Your task to perform on an android device: refresh tabs in the chrome app Image 0: 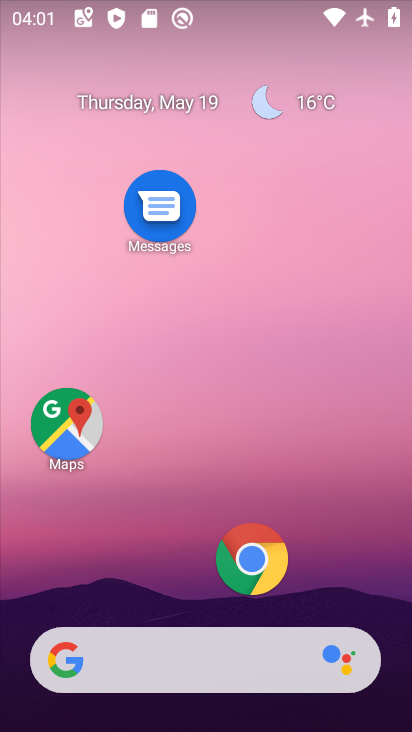
Step 0: click (239, 569)
Your task to perform on an android device: refresh tabs in the chrome app Image 1: 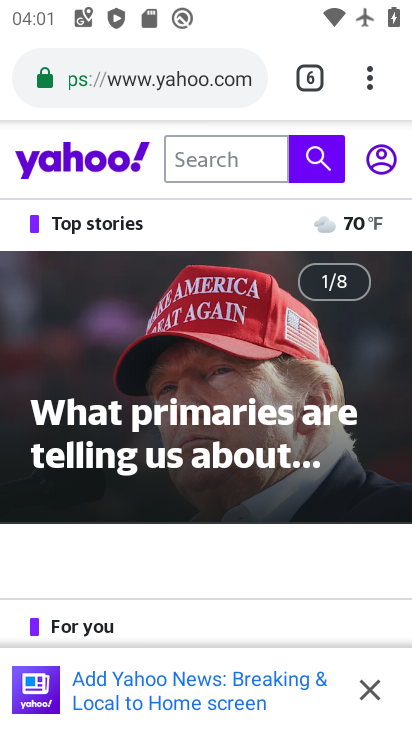
Step 1: click (361, 84)
Your task to perform on an android device: refresh tabs in the chrome app Image 2: 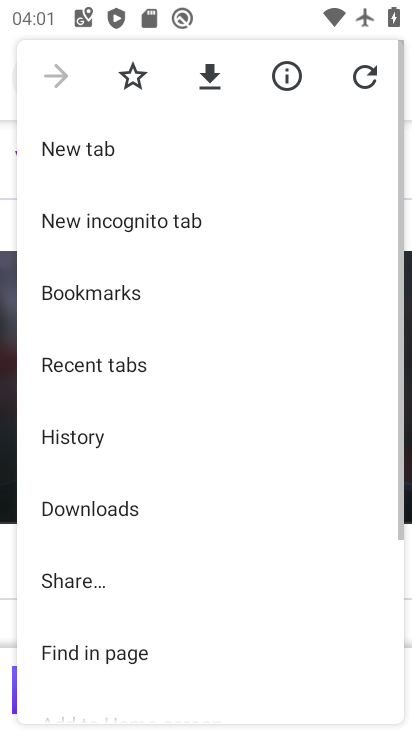
Step 2: click (364, 84)
Your task to perform on an android device: refresh tabs in the chrome app Image 3: 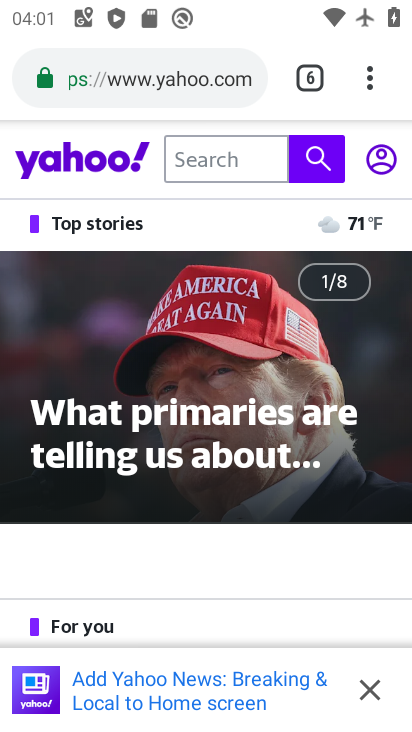
Step 3: task complete